Your task to perform on an android device: Open Youtube and go to "Your channel" Image 0: 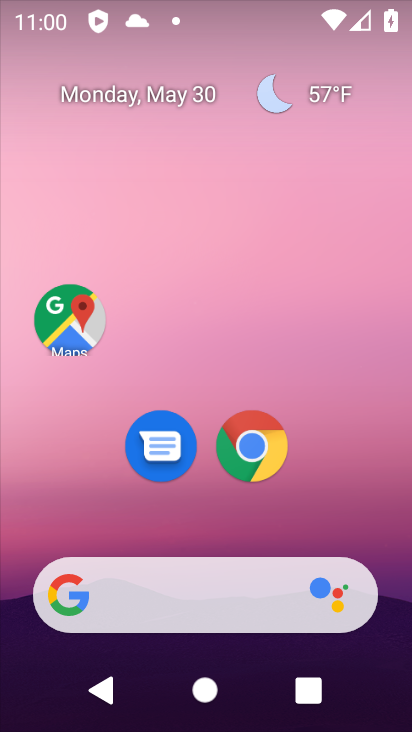
Step 0: drag from (328, 544) to (237, 148)
Your task to perform on an android device: Open Youtube and go to "Your channel" Image 1: 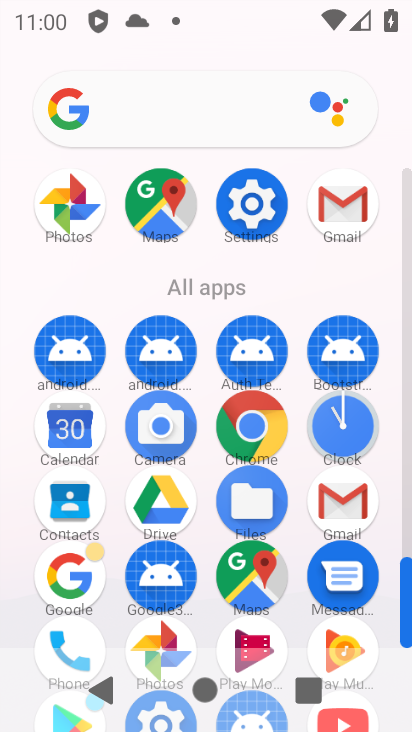
Step 1: drag from (201, 606) to (146, 263)
Your task to perform on an android device: Open Youtube and go to "Your channel" Image 2: 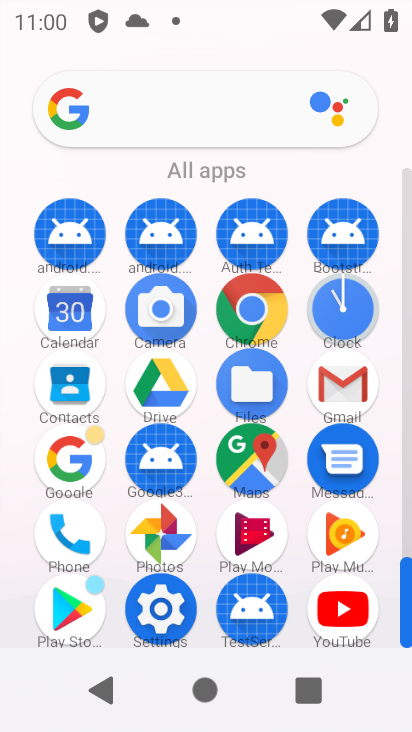
Step 2: click (355, 604)
Your task to perform on an android device: Open Youtube and go to "Your channel" Image 3: 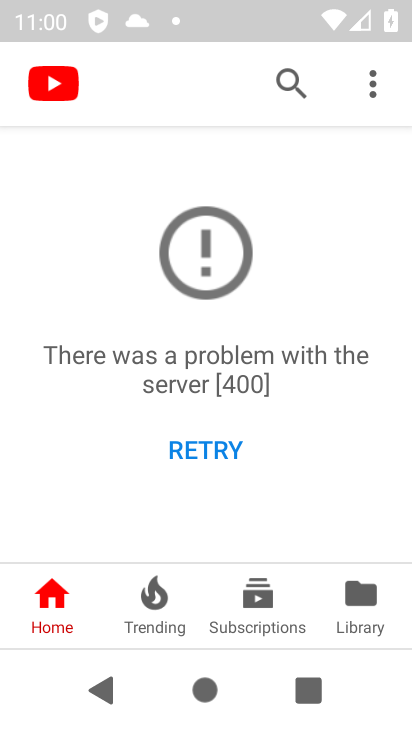
Step 3: click (371, 77)
Your task to perform on an android device: Open Youtube and go to "Your channel" Image 4: 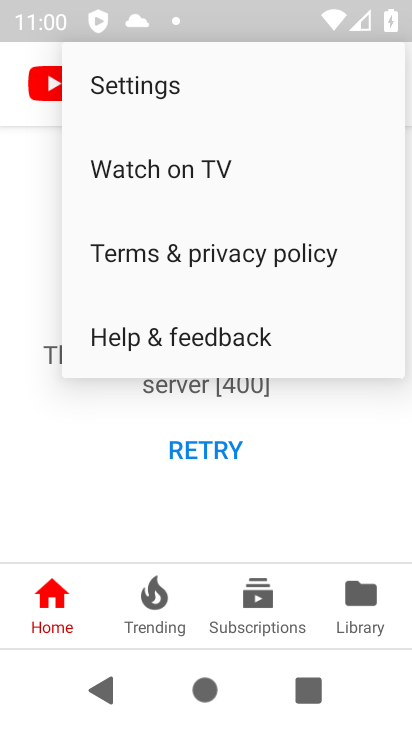
Step 4: click (358, 599)
Your task to perform on an android device: Open Youtube and go to "Your channel" Image 5: 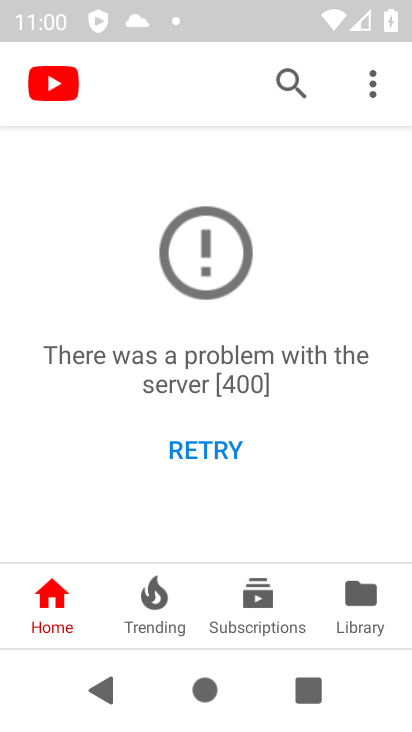
Step 5: task complete